Your task to perform on an android device: Go to Maps Image 0: 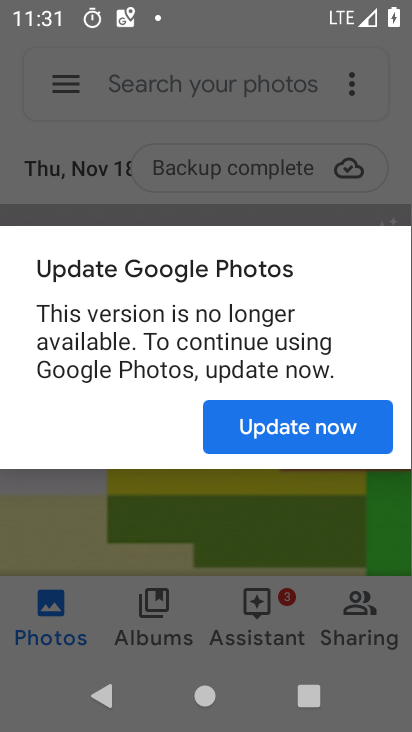
Step 0: press home button
Your task to perform on an android device: Go to Maps Image 1: 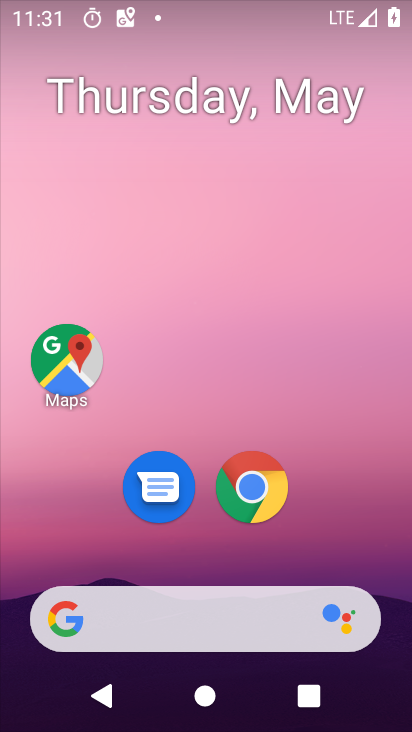
Step 1: drag from (157, 646) to (179, 123)
Your task to perform on an android device: Go to Maps Image 2: 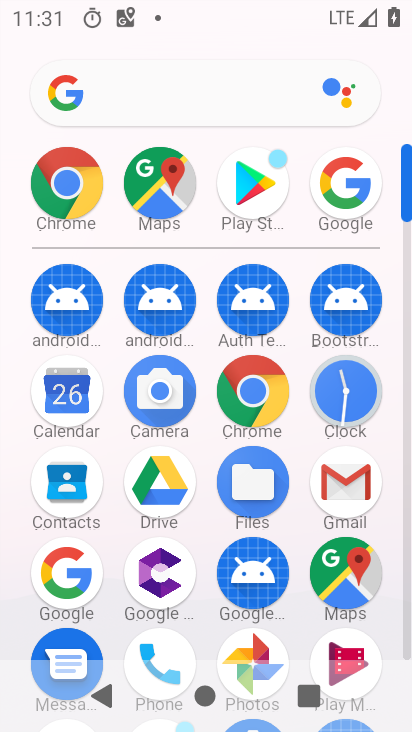
Step 2: click (352, 578)
Your task to perform on an android device: Go to Maps Image 3: 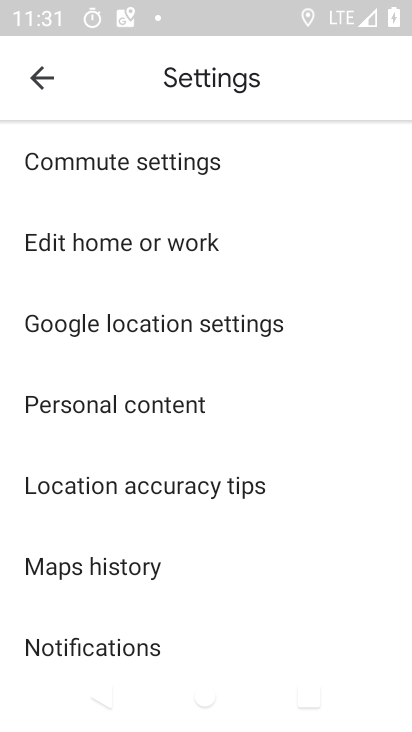
Step 3: click (45, 77)
Your task to perform on an android device: Go to Maps Image 4: 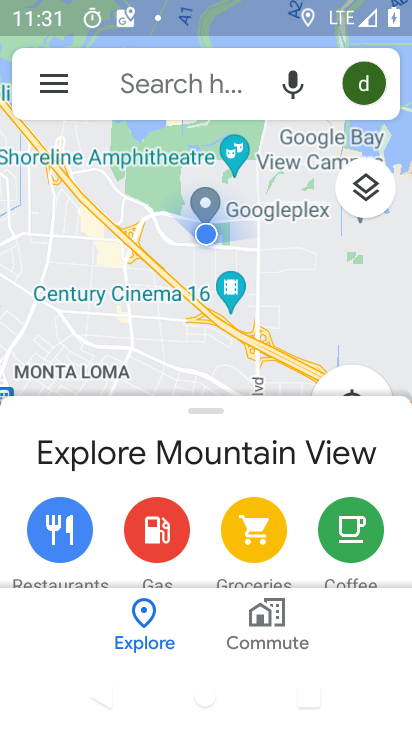
Step 4: task complete